Your task to perform on an android device: turn off airplane mode Image 0: 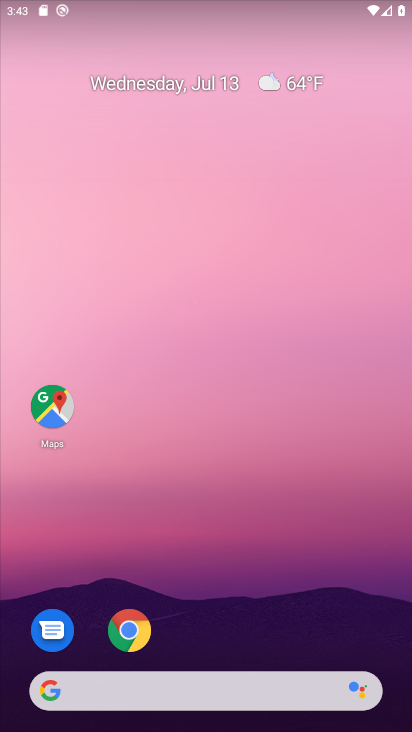
Step 0: drag from (220, 189) to (253, 714)
Your task to perform on an android device: turn off airplane mode Image 1: 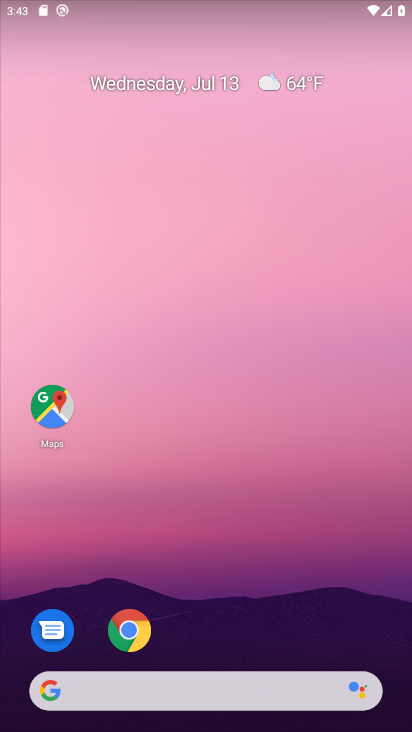
Step 1: task complete